Your task to perform on an android device: Open Wikipedia Image 0: 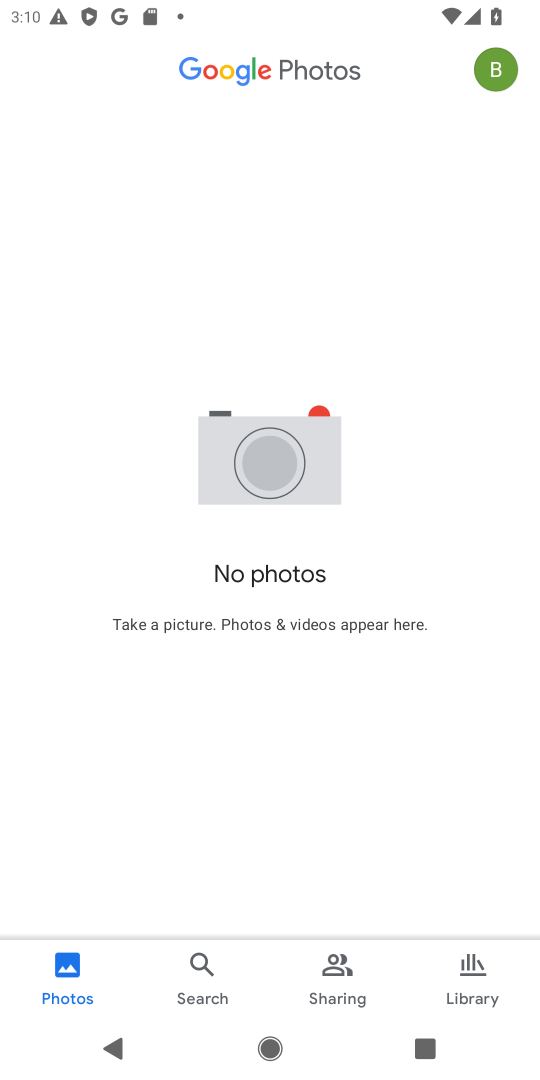
Step 0: press home button
Your task to perform on an android device: Open Wikipedia Image 1: 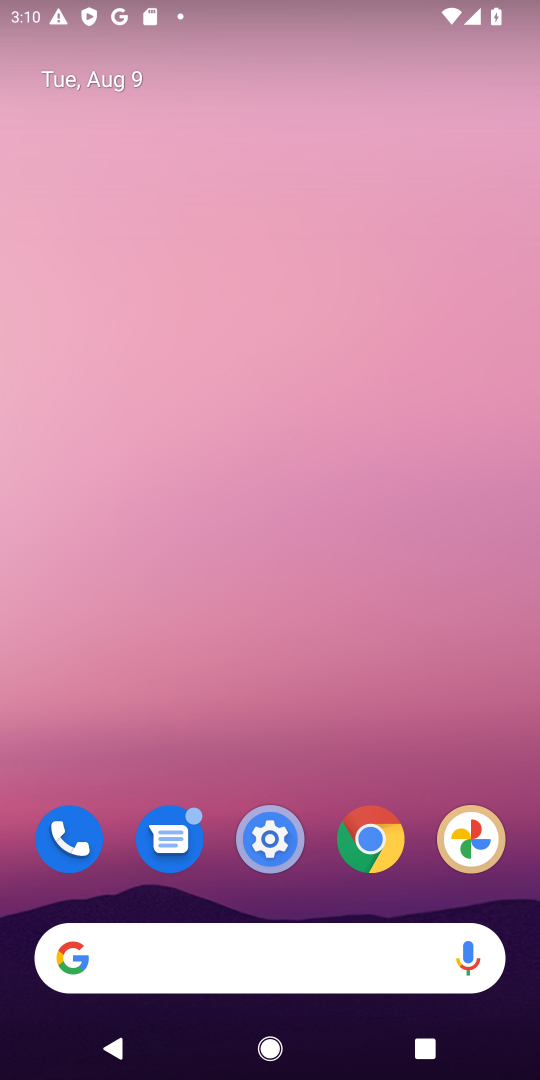
Step 1: click (71, 960)
Your task to perform on an android device: Open Wikipedia Image 2: 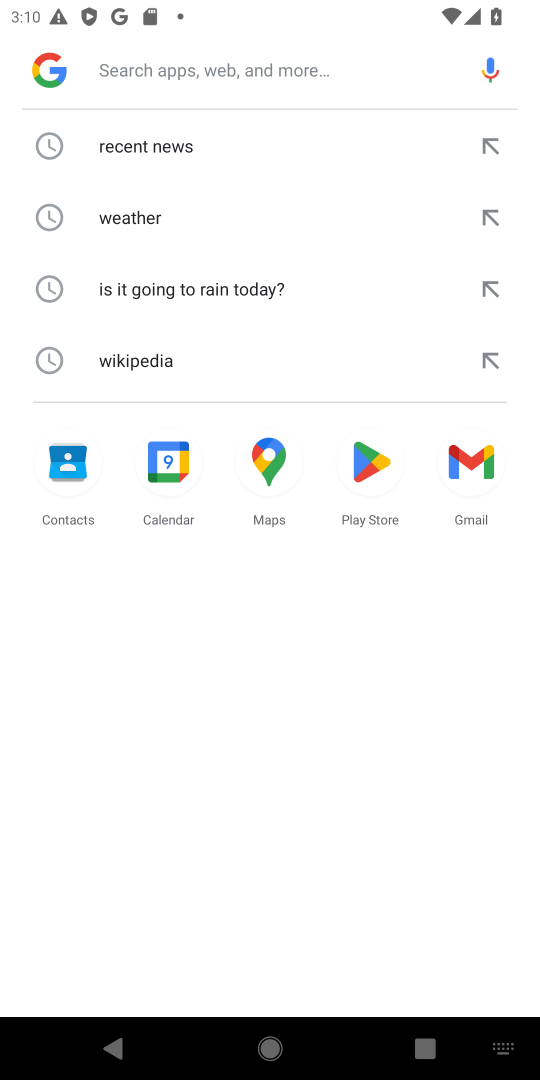
Step 2: click (130, 364)
Your task to perform on an android device: Open Wikipedia Image 3: 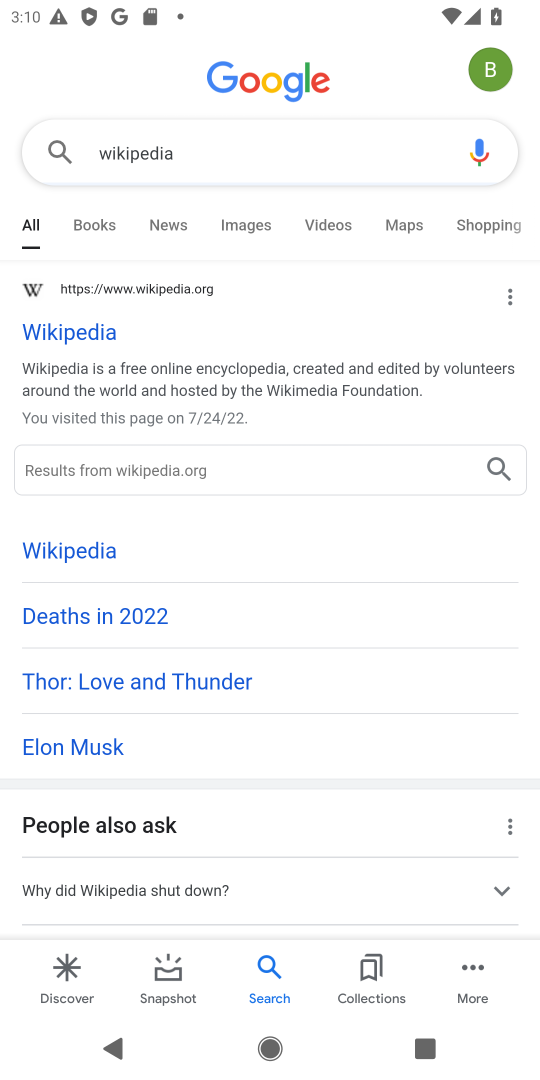
Step 3: click (46, 329)
Your task to perform on an android device: Open Wikipedia Image 4: 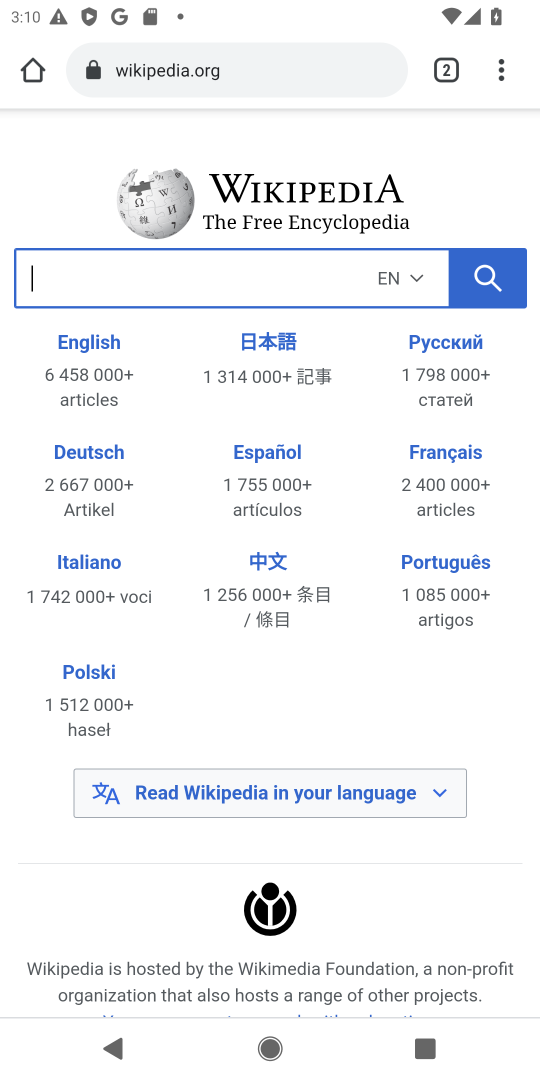
Step 4: task complete